Your task to perform on an android device: Open the calendar and show me this week's events? Image 0: 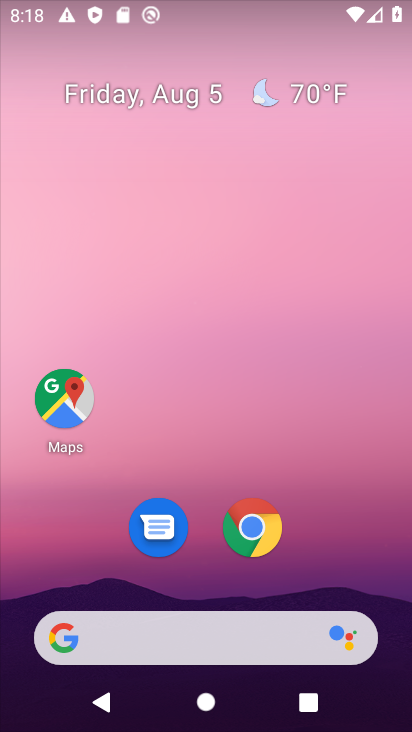
Step 0: drag from (255, 640) to (221, 253)
Your task to perform on an android device: Open the calendar and show me this week's events? Image 1: 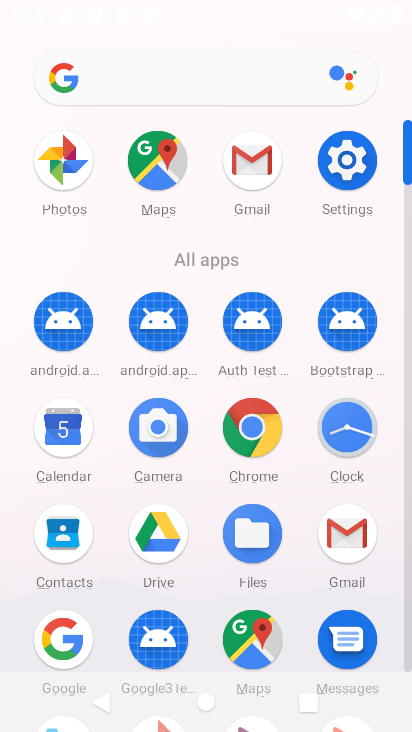
Step 1: click (61, 437)
Your task to perform on an android device: Open the calendar and show me this week's events? Image 2: 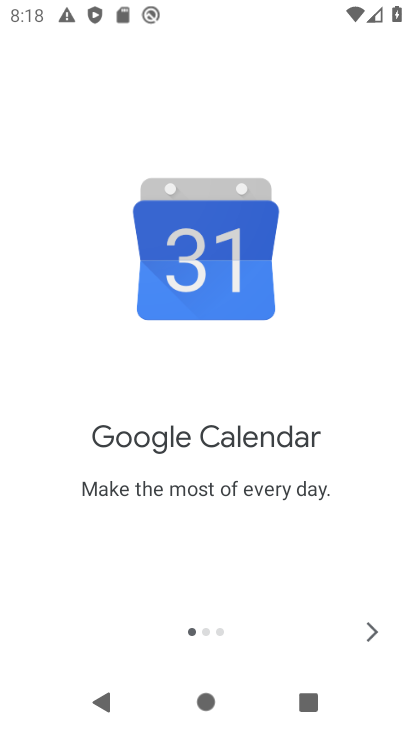
Step 2: click (381, 626)
Your task to perform on an android device: Open the calendar and show me this week's events? Image 3: 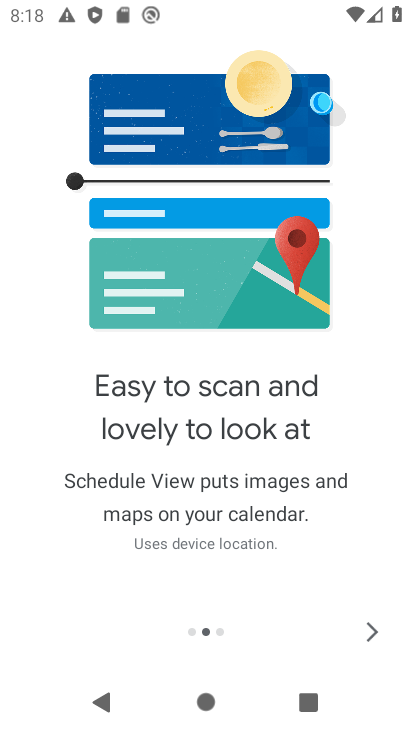
Step 3: click (381, 626)
Your task to perform on an android device: Open the calendar and show me this week's events? Image 4: 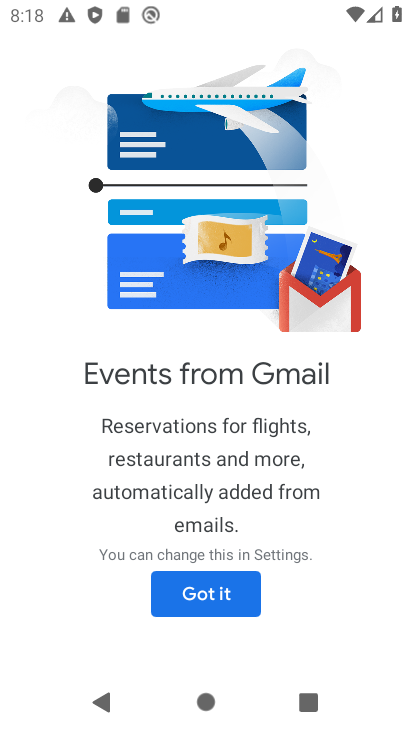
Step 4: click (381, 626)
Your task to perform on an android device: Open the calendar and show me this week's events? Image 5: 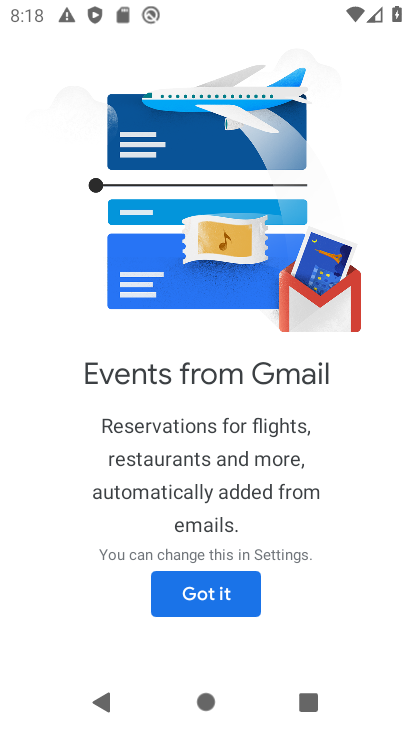
Step 5: click (235, 586)
Your task to perform on an android device: Open the calendar and show me this week's events? Image 6: 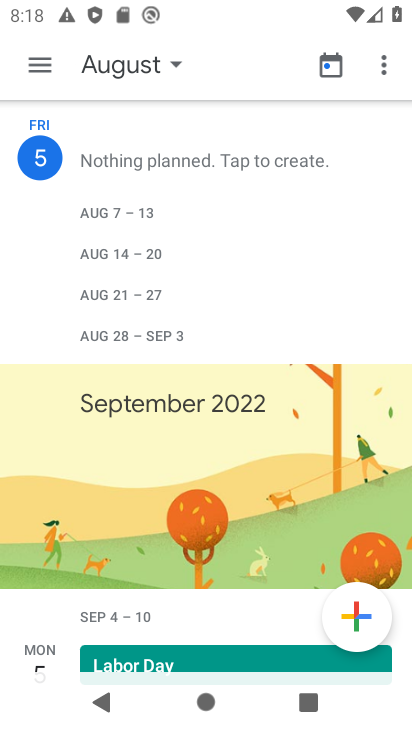
Step 6: click (38, 64)
Your task to perform on an android device: Open the calendar and show me this week's events? Image 7: 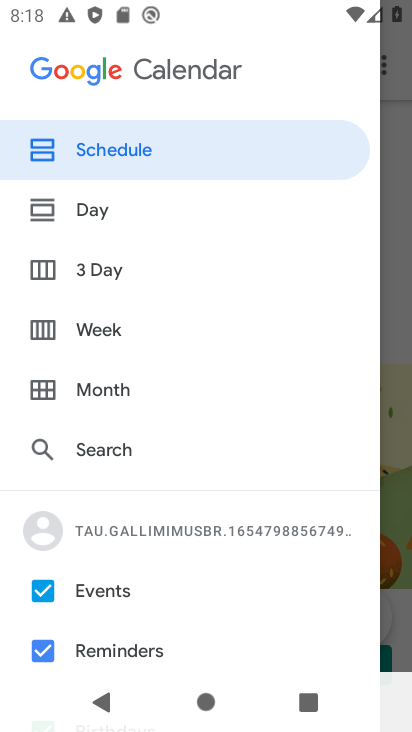
Step 7: click (116, 335)
Your task to perform on an android device: Open the calendar and show me this week's events? Image 8: 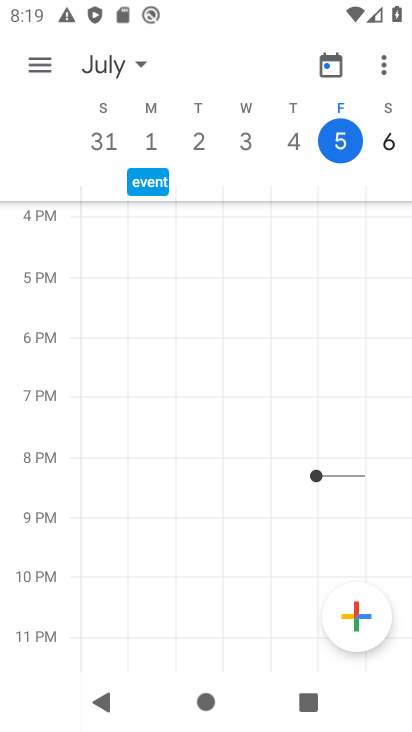
Step 8: task complete